Your task to perform on an android device: Open Google Image 0: 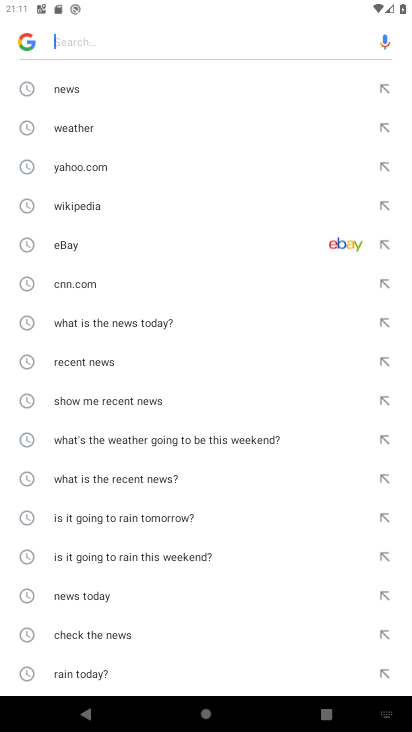
Step 0: press back button
Your task to perform on an android device: Open Google Image 1: 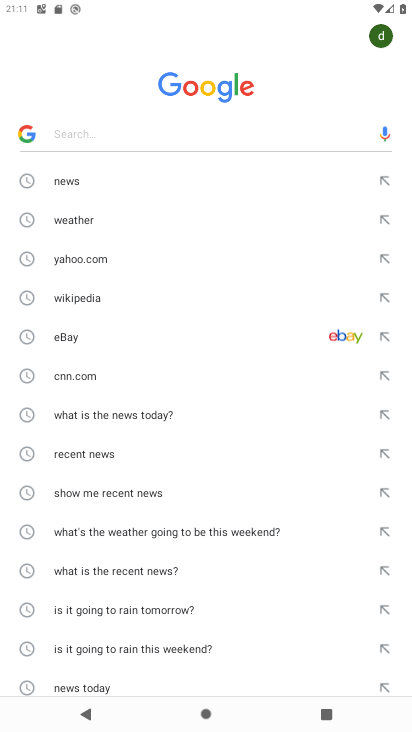
Step 1: press back button
Your task to perform on an android device: Open Google Image 2: 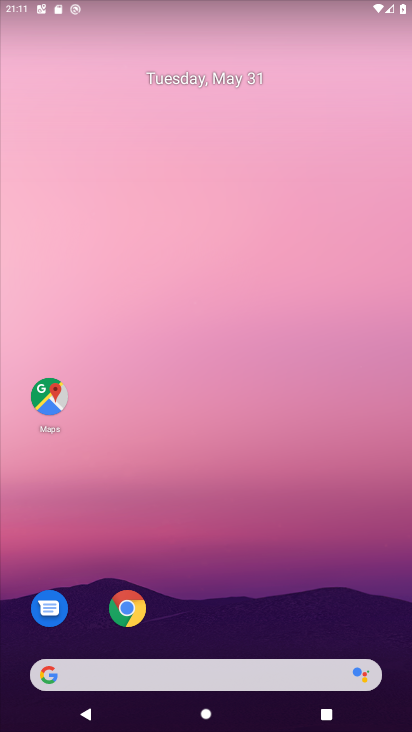
Step 2: drag from (233, 607) to (216, 246)
Your task to perform on an android device: Open Google Image 3: 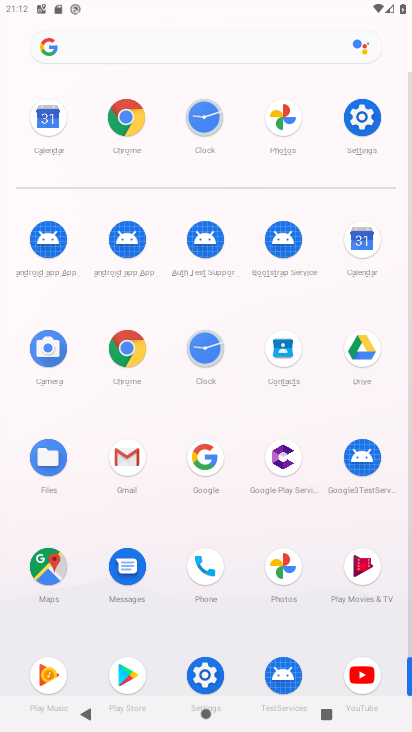
Step 3: click (201, 455)
Your task to perform on an android device: Open Google Image 4: 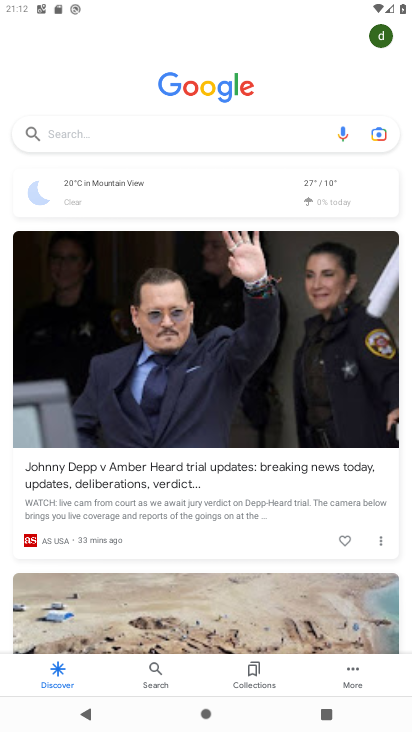
Step 4: task complete